Your task to perform on an android device: Open Chrome and go to settings Image 0: 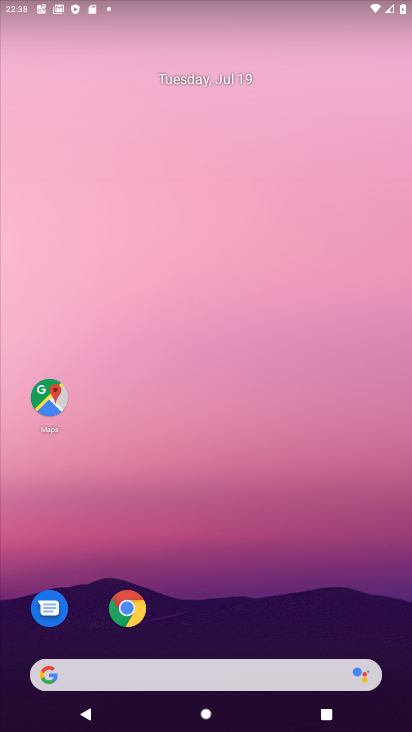
Step 0: drag from (308, 615) to (279, 143)
Your task to perform on an android device: Open Chrome and go to settings Image 1: 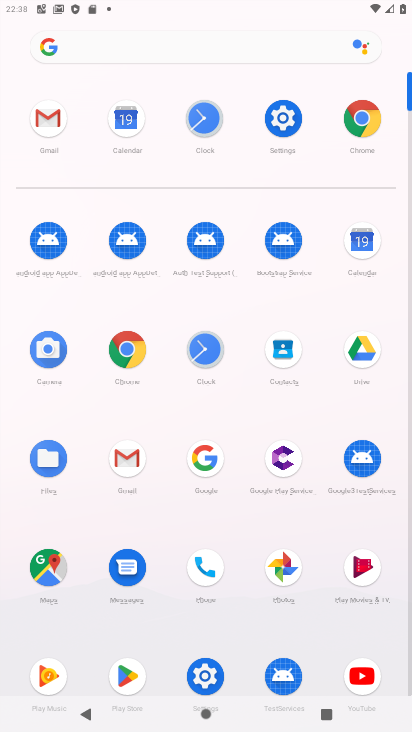
Step 1: click (121, 351)
Your task to perform on an android device: Open Chrome and go to settings Image 2: 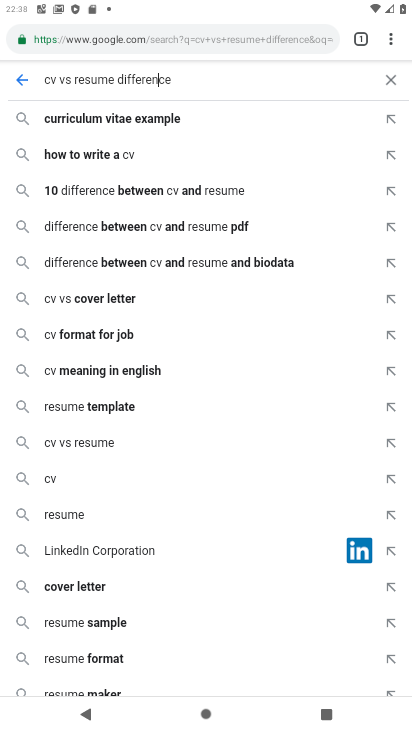
Step 2: task complete